Your task to perform on an android device: Go to notification settings Image 0: 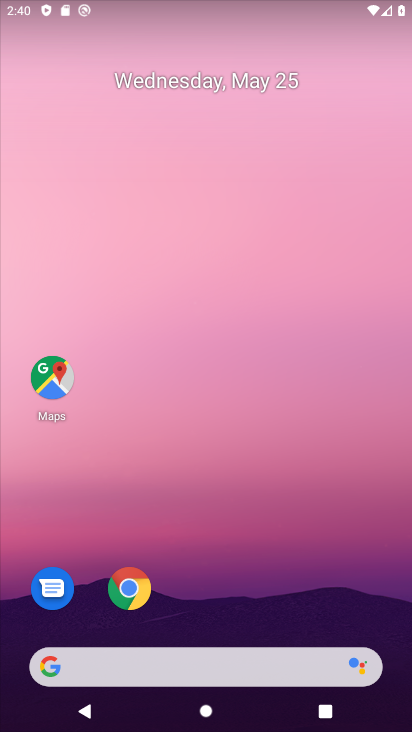
Step 0: drag from (304, 710) to (185, 152)
Your task to perform on an android device: Go to notification settings Image 1: 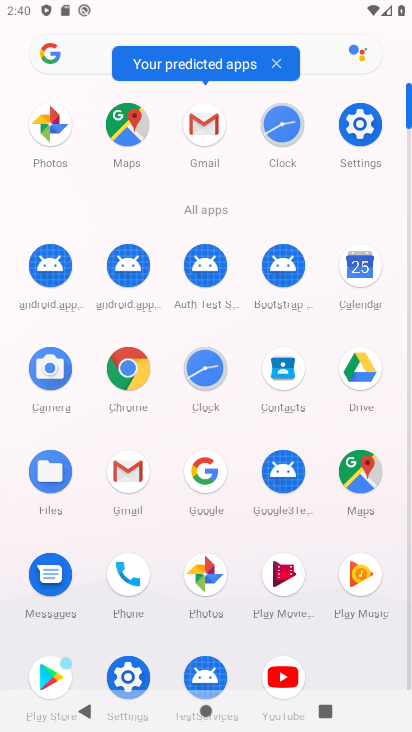
Step 1: click (368, 134)
Your task to perform on an android device: Go to notification settings Image 2: 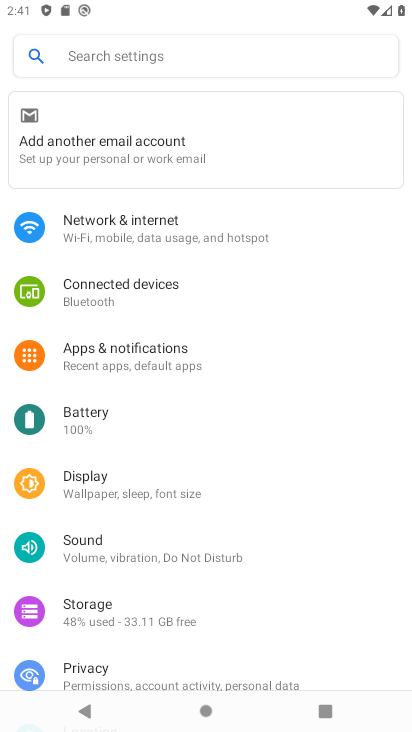
Step 2: click (143, 53)
Your task to perform on an android device: Go to notification settings Image 3: 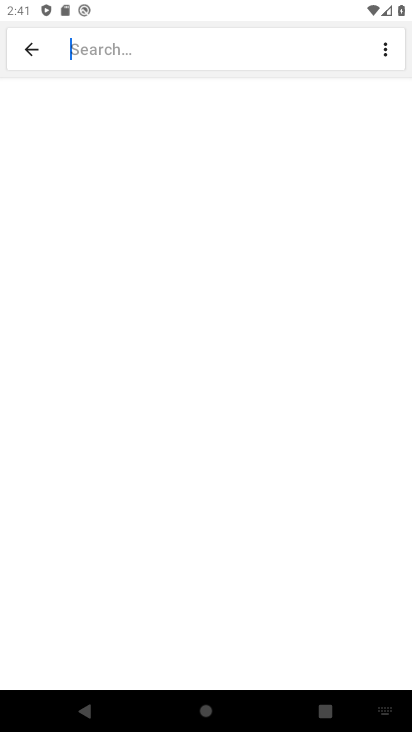
Step 3: click (378, 709)
Your task to perform on an android device: Go to notification settings Image 4: 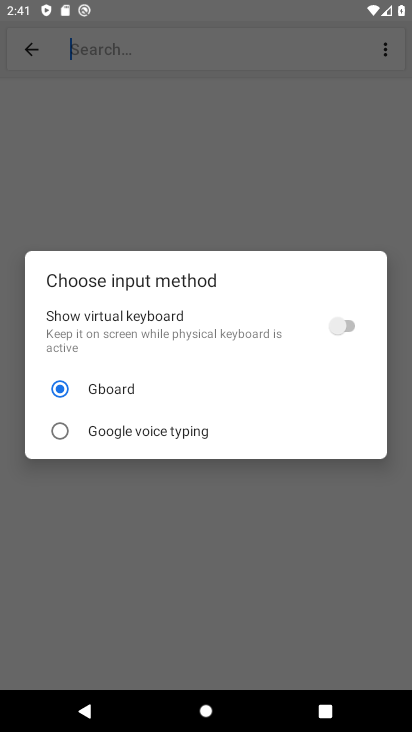
Step 4: drag from (388, 705) to (380, 648)
Your task to perform on an android device: Go to notification settings Image 5: 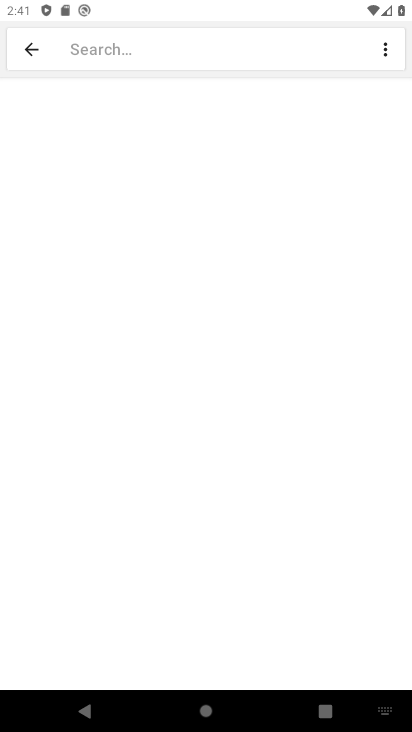
Step 5: click (341, 319)
Your task to perform on an android device: Go to notification settings Image 6: 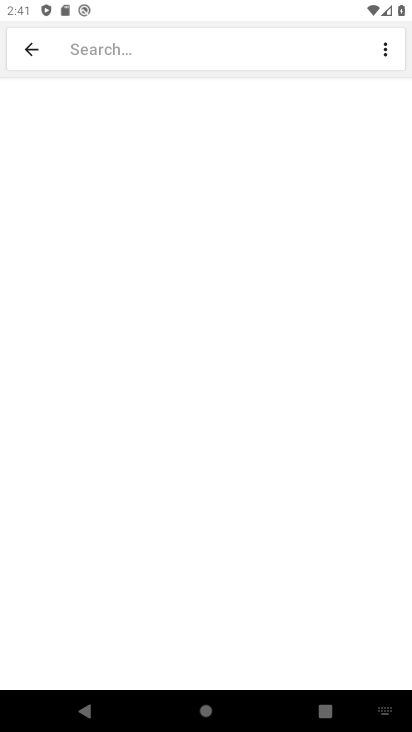
Step 6: click (399, 713)
Your task to perform on an android device: Go to notification settings Image 7: 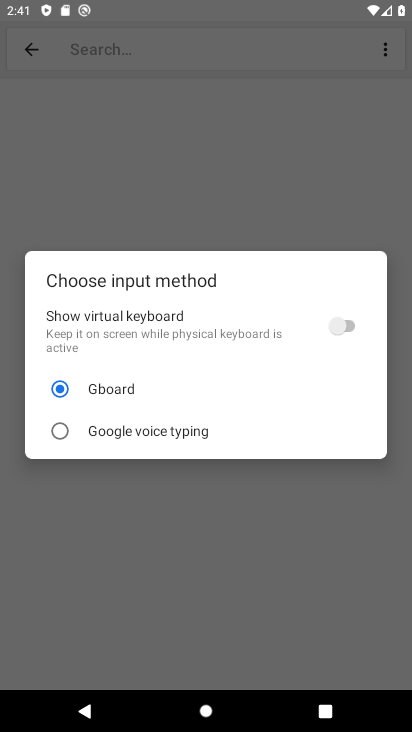
Step 7: click (347, 311)
Your task to perform on an android device: Go to notification settings Image 8: 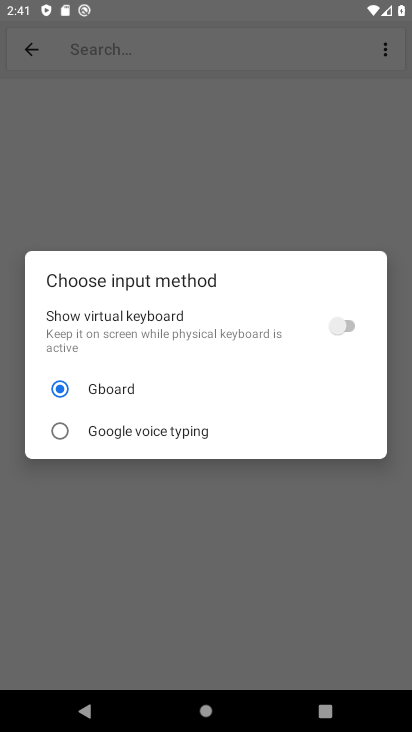
Step 8: click (343, 325)
Your task to perform on an android device: Go to notification settings Image 9: 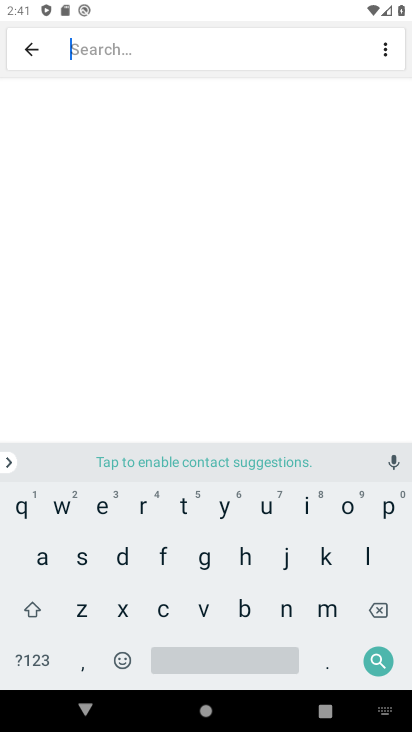
Step 9: click (294, 607)
Your task to perform on an android device: Go to notification settings Image 10: 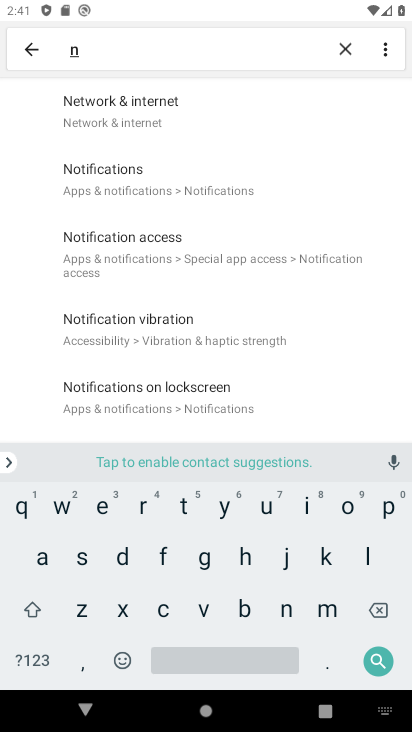
Step 10: click (343, 504)
Your task to perform on an android device: Go to notification settings Image 11: 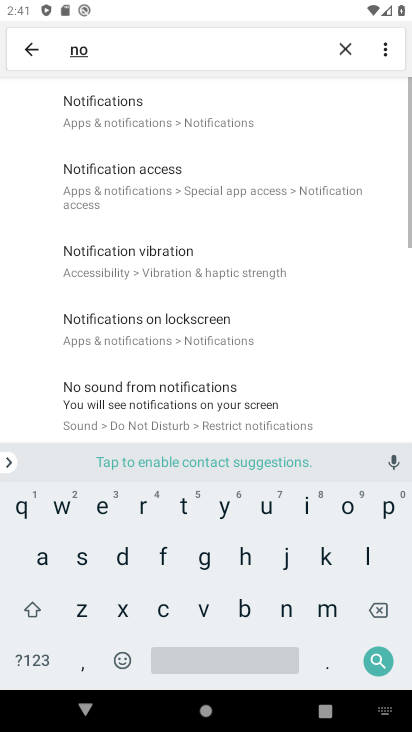
Step 11: click (137, 123)
Your task to perform on an android device: Go to notification settings Image 12: 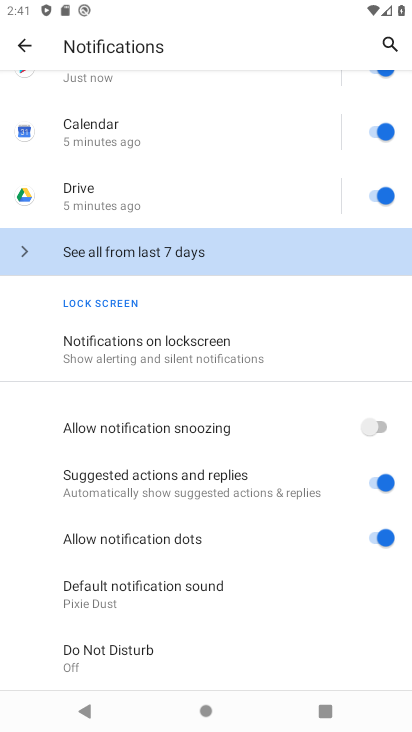
Step 12: click (114, 354)
Your task to perform on an android device: Go to notification settings Image 13: 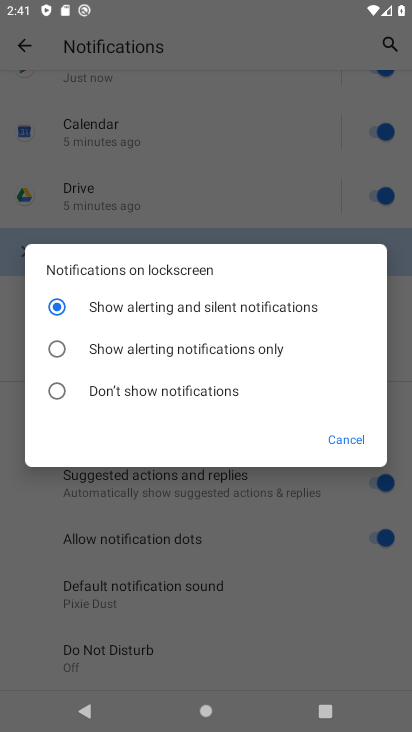
Step 13: task complete